Your task to perform on an android device: Is it going to rain this weekend? Image 0: 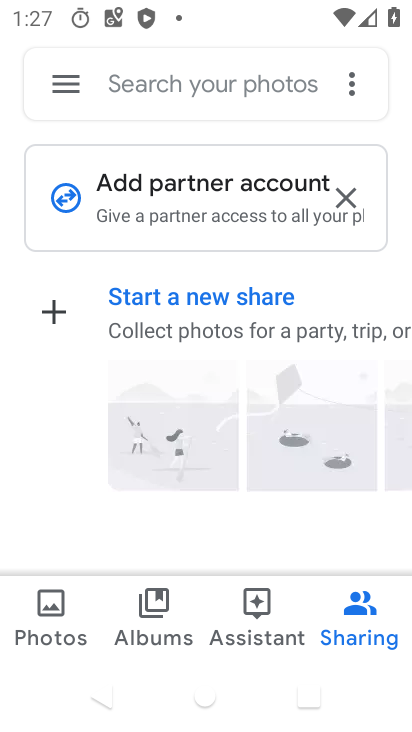
Step 0: press home button
Your task to perform on an android device: Is it going to rain this weekend? Image 1: 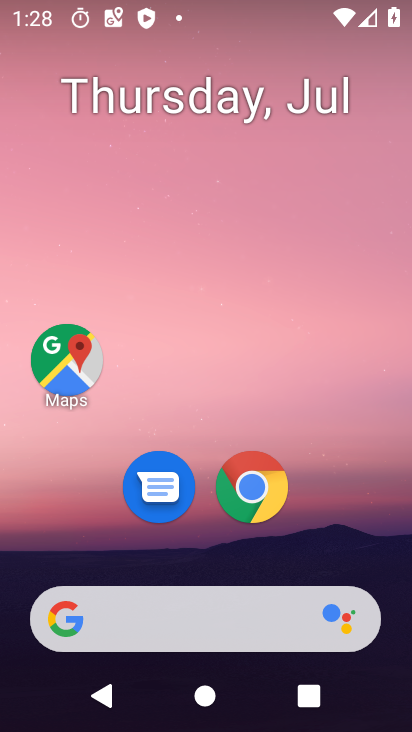
Step 1: drag from (126, 622) to (226, 106)
Your task to perform on an android device: Is it going to rain this weekend? Image 2: 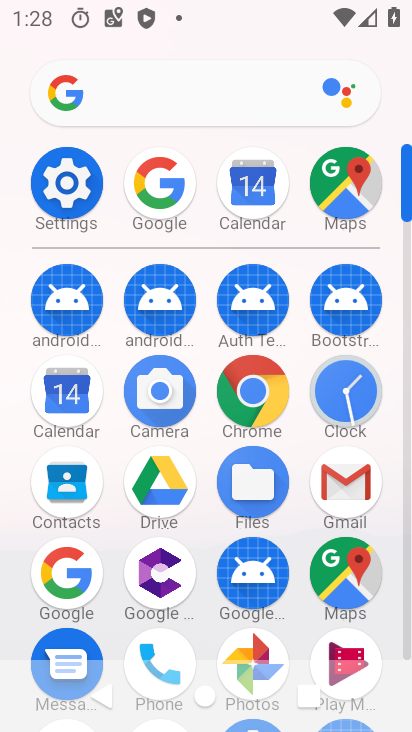
Step 2: click (68, 600)
Your task to perform on an android device: Is it going to rain this weekend? Image 3: 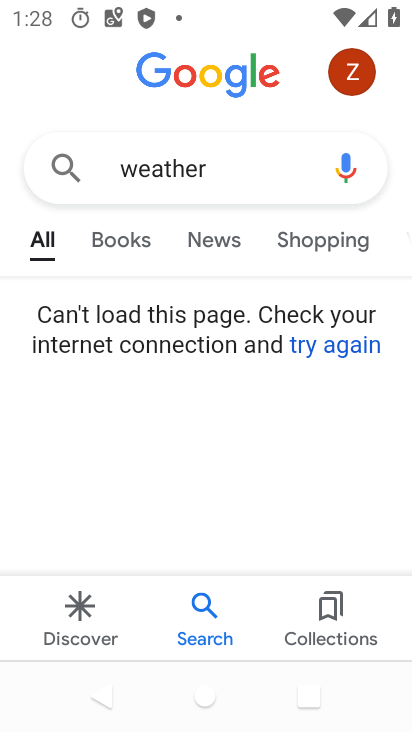
Step 3: click (253, 168)
Your task to perform on an android device: Is it going to rain this weekend? Image 4: 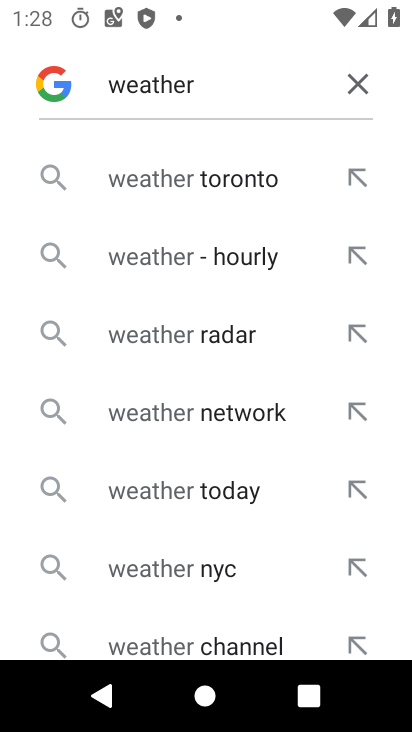
Step 4: click (229, 488)
Your task to perform on an android device: Is it going to rain this weekend? Image 5: 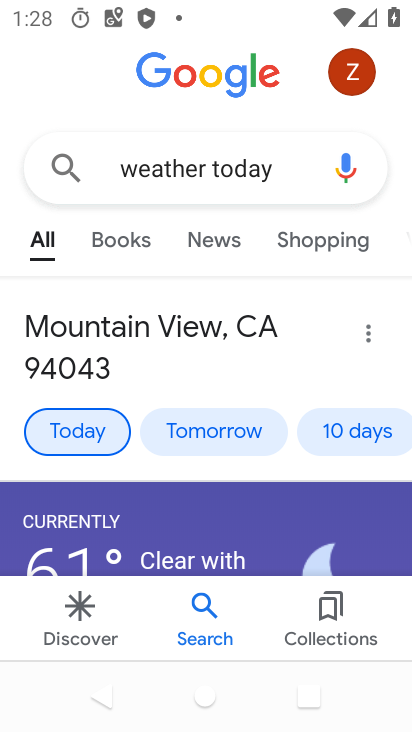
Step 5: click (318, 436)
Your task to perform on an android device: Is it going to rain this weekend? Image 6: 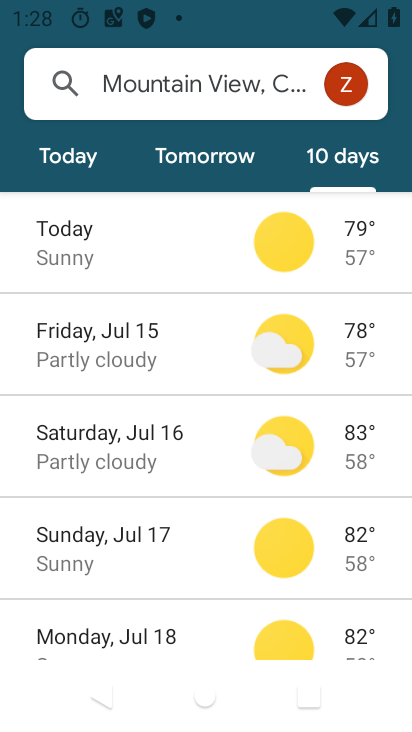
Step 6: task complete